Your task to perform on an android device: Go to Wikipedia Image 0: 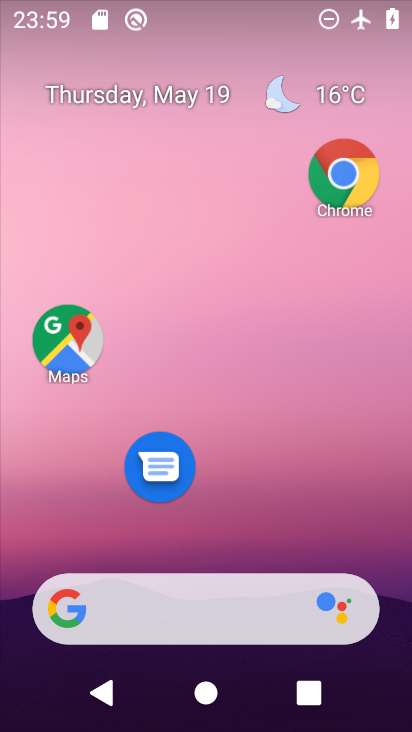
Step 0: click (359, 155)
Your task to perform on an android device: Go to Wikipedia Image 1: 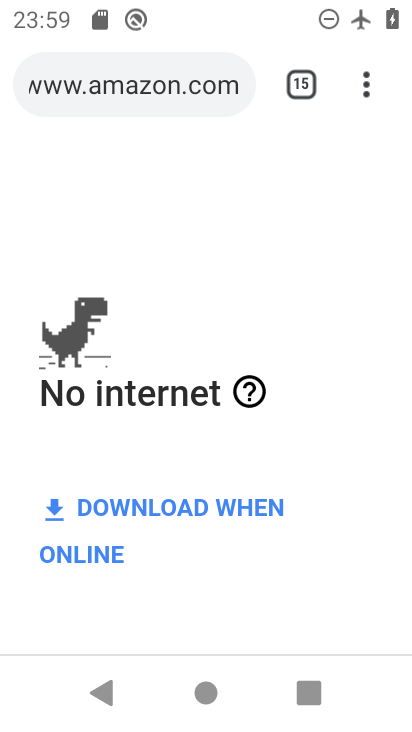
Step 1: click (367, 87)
Your task to perform on an android device: Go to Wikipedia Image 2: 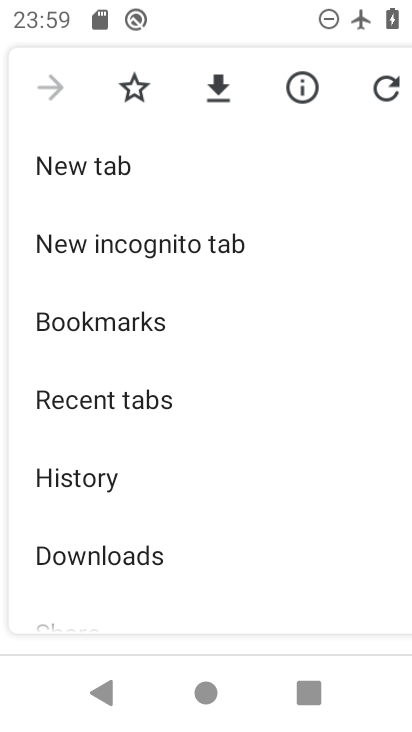
Step 2: click (100, 154)
Your task to perform on an android device: Go to Wikipedia Image 3: 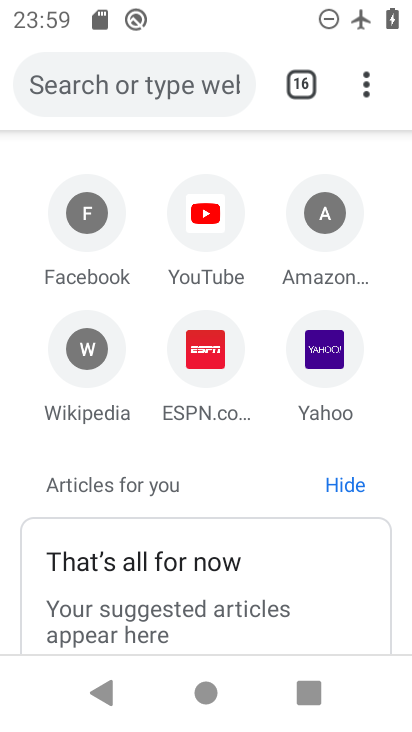
Step 3: click (103, 340)
Your task to perform on an android device: Go to Wikipedia Image 4: 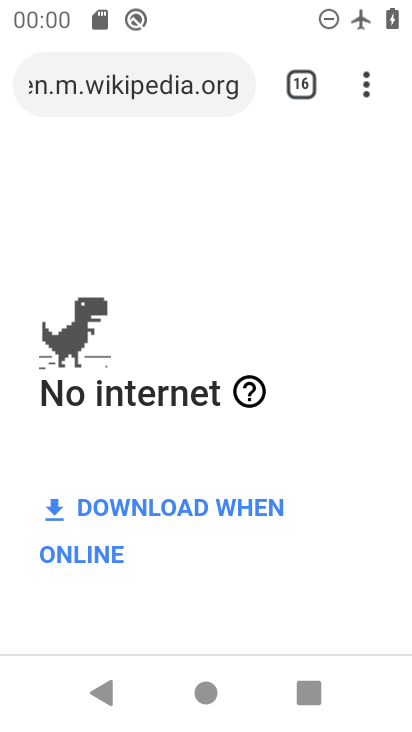
Step 4: task complete